Your task to perform on an android device: What's the price of the Galaxy phone? Image 0: 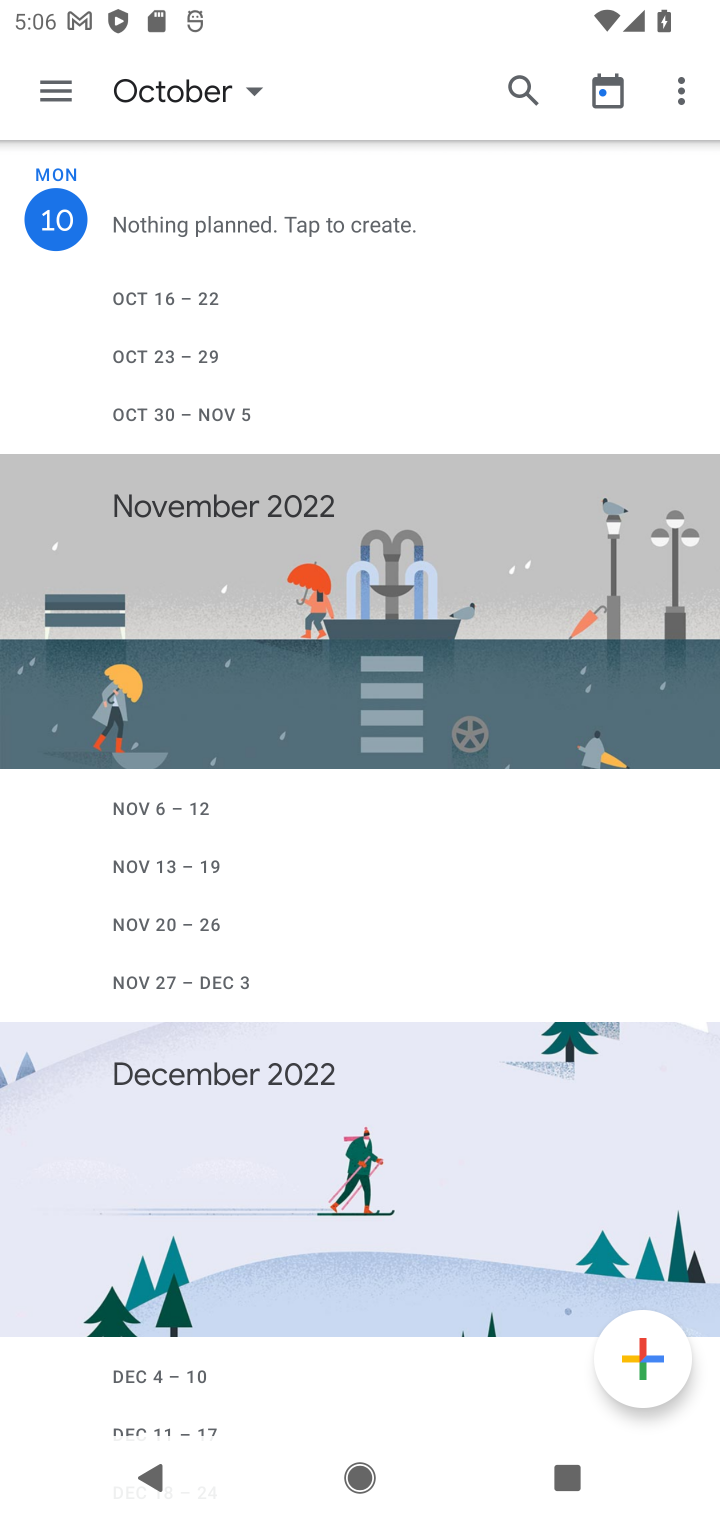
Step 0: press home button
Your task to perform on an android device: What's the price of the Galaxy phone? Image 1: 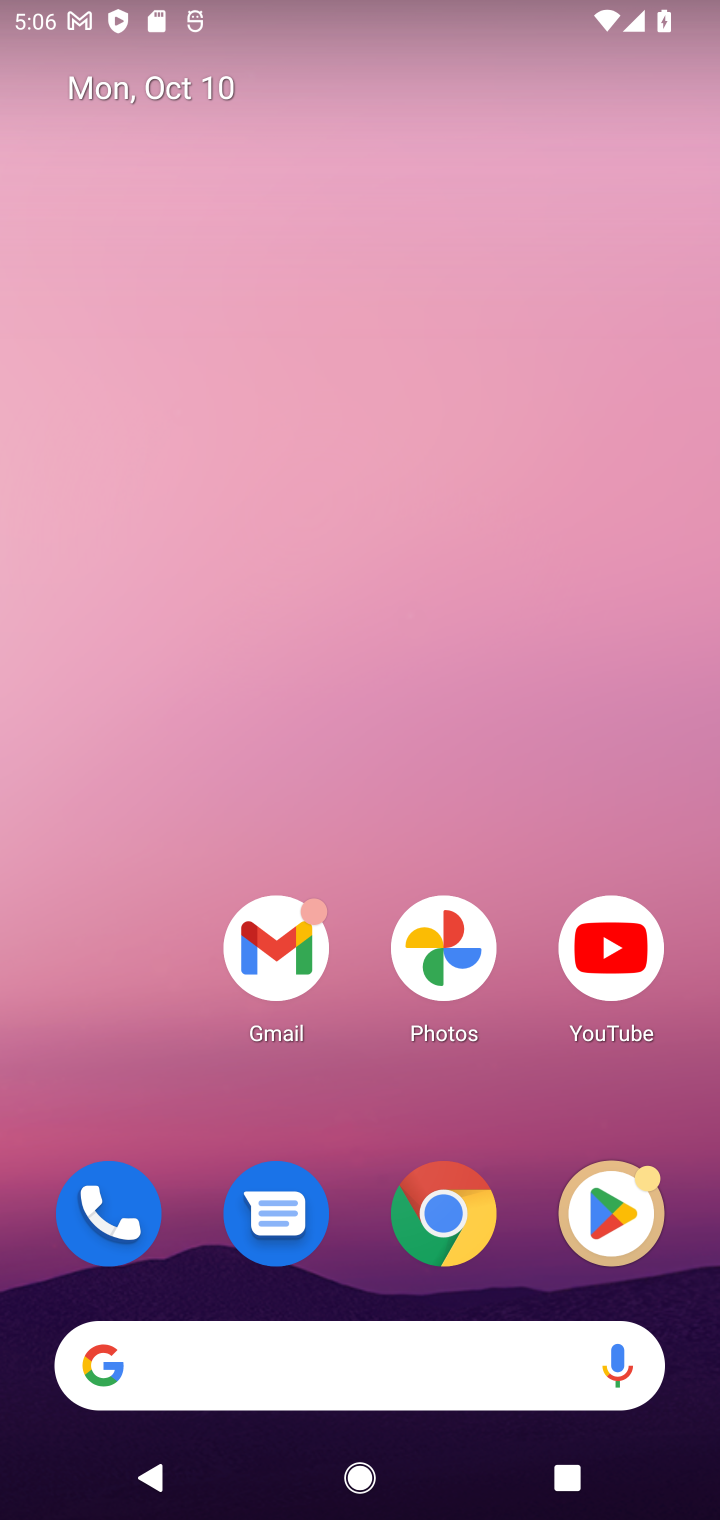
Step 1: click (216, 1363)
Your task to perform on an android device: What's the price of the Galaxy phone? Image 2: 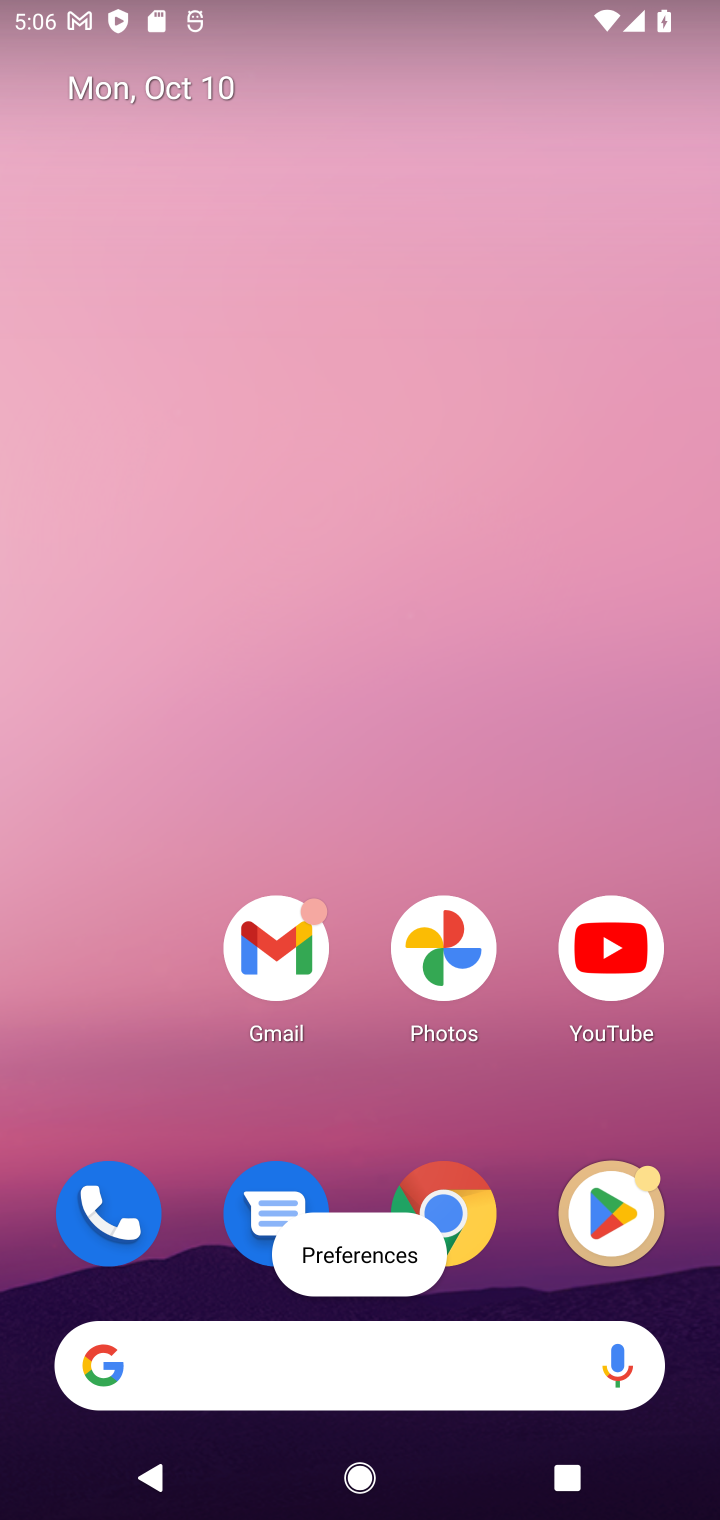
Step 2: click (278, 1343)
Your task to perform on an android device: What's the price of the Galaxy phone? Image 3: 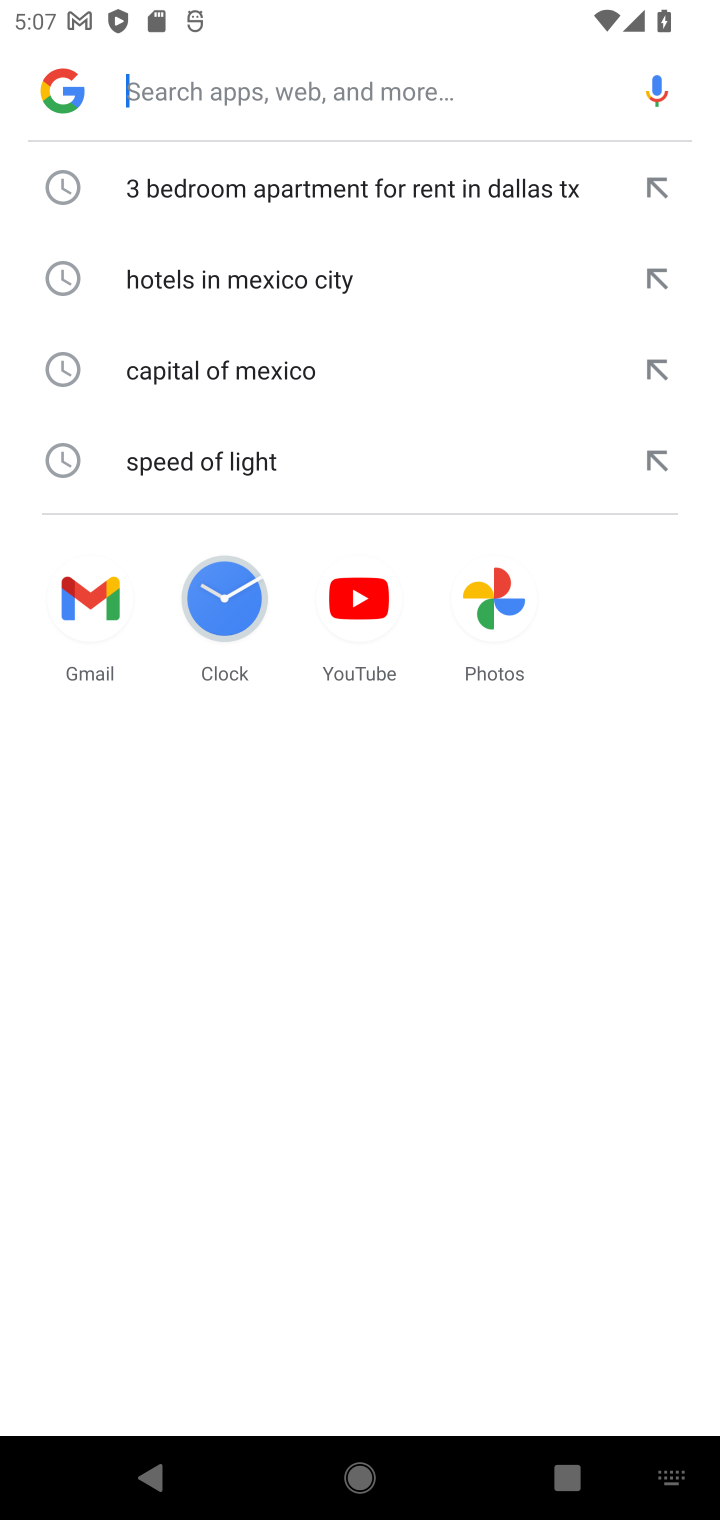
Step 3: click (180, 86)
Your task to perform on an android device: What's the price of the Galaxy phone? Image 4: 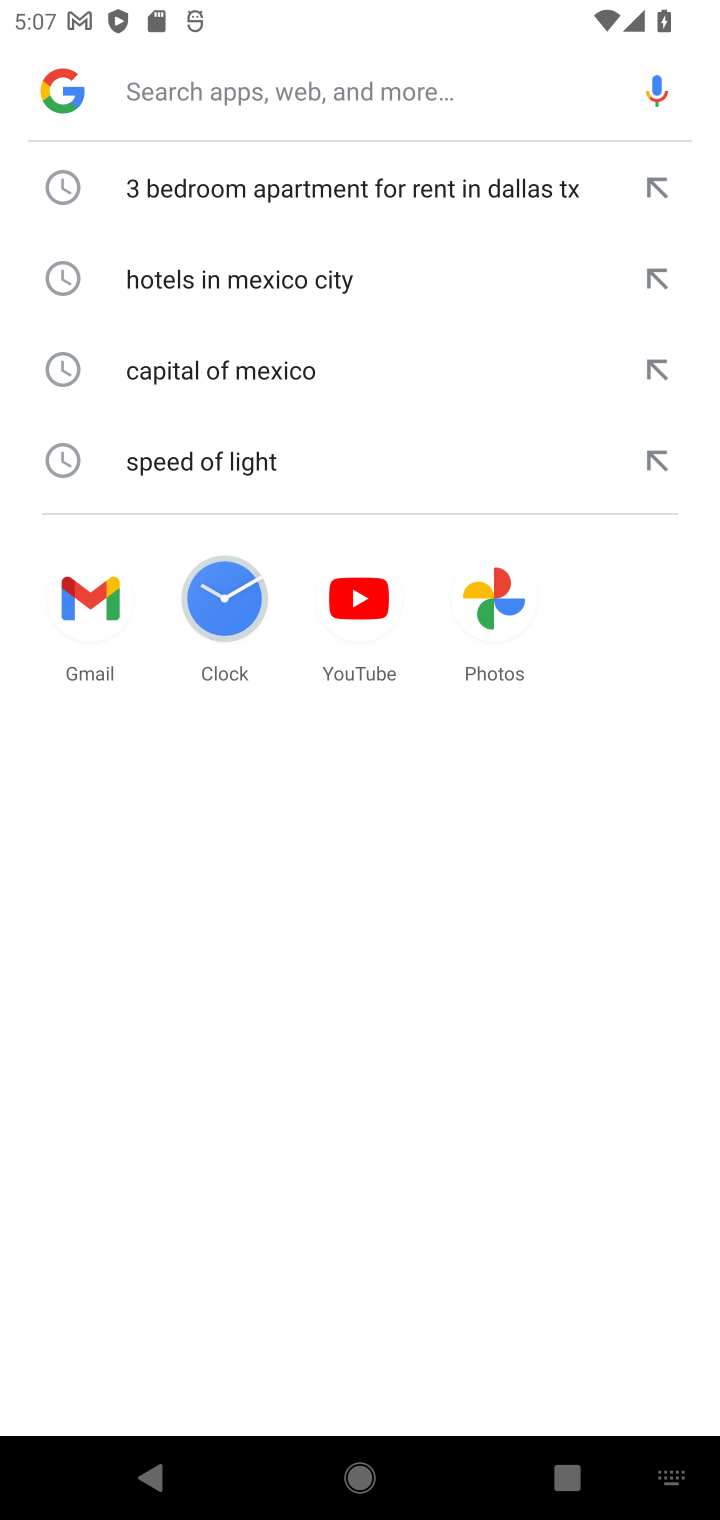
Step 4: type "What's the price of the Galaxy phone"
Your task to perform on an android device: What's the price of the Galaxy phone? Image 5: 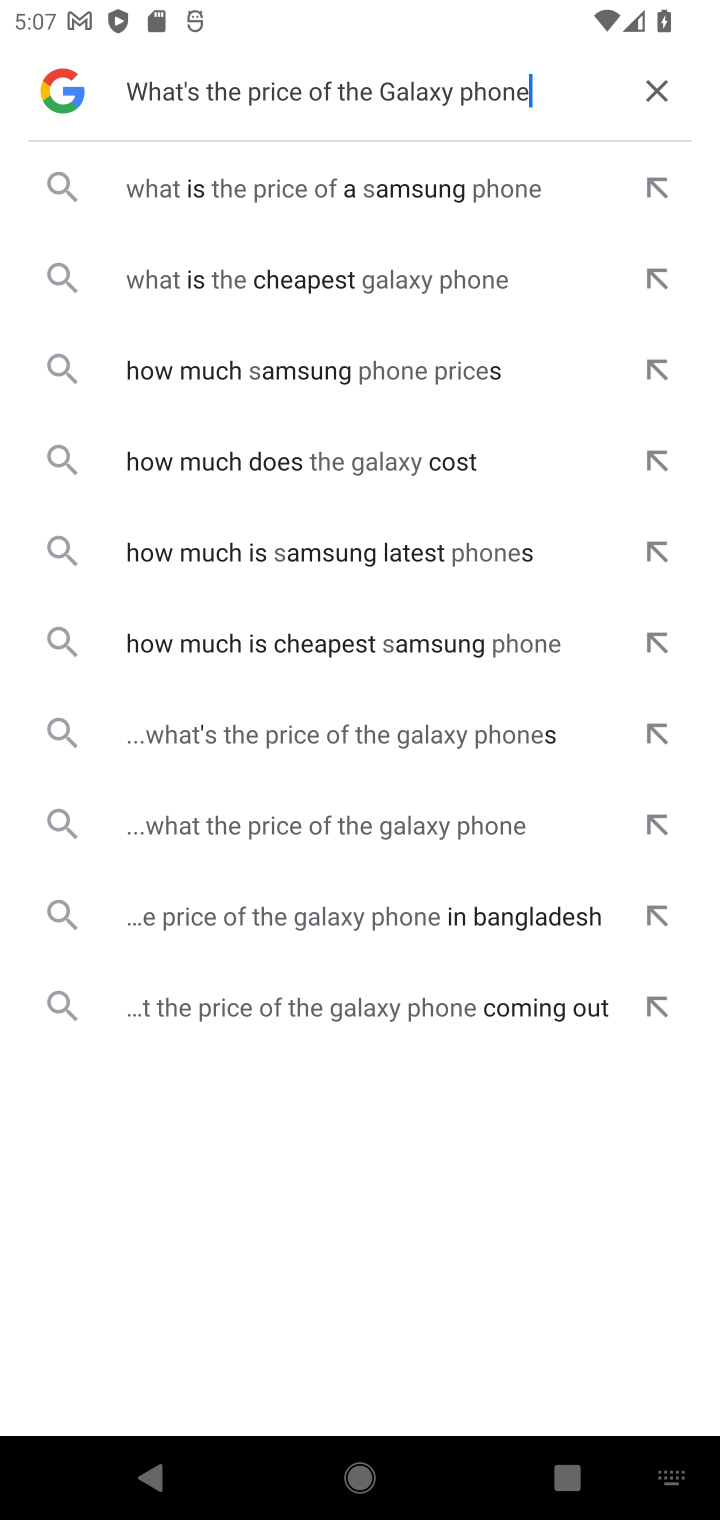
Step 5: click (329, 465)
Your task to perform on an android device: What's the price of the Galaxy phone? Image 6: 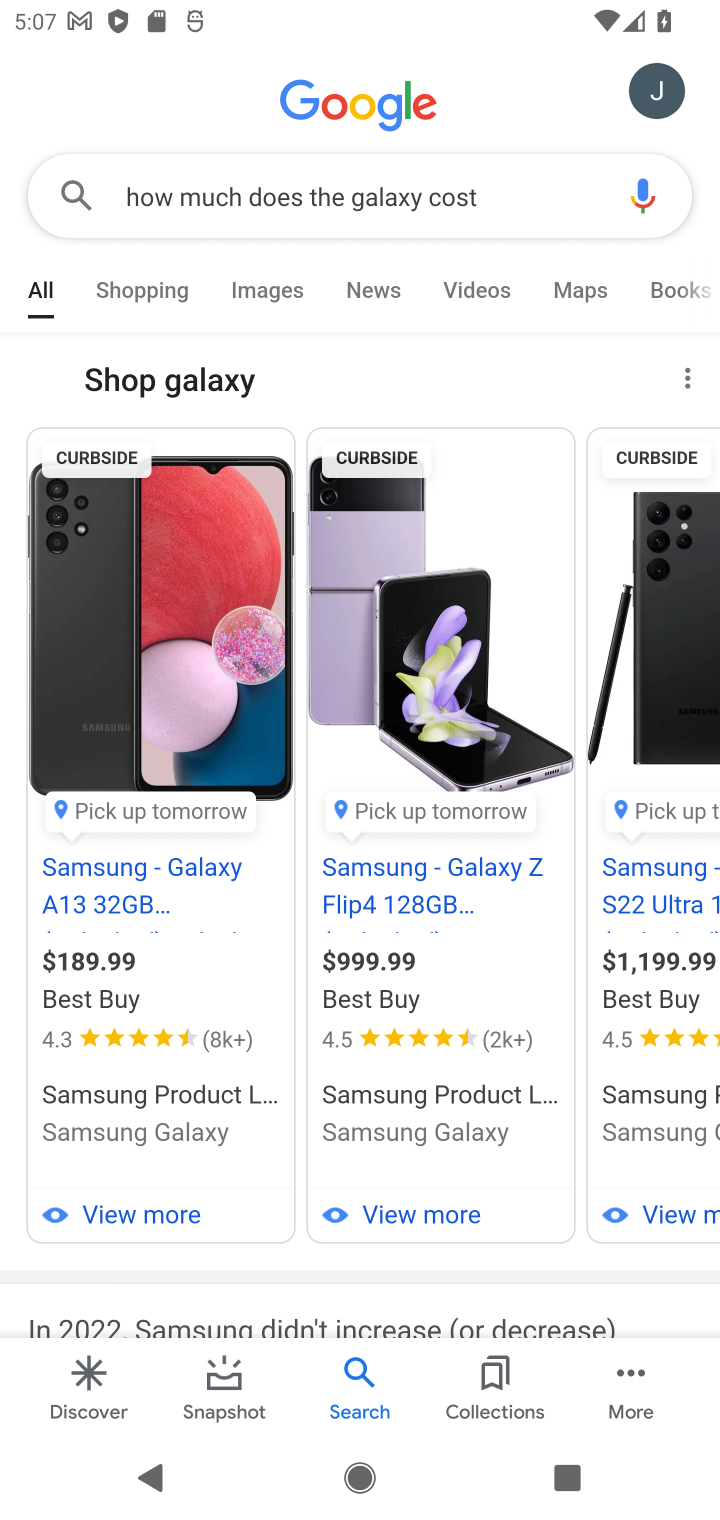
Step 6: task complete